Your task to perform on an android device: Set the phone to "Do not disturb". Image 0: 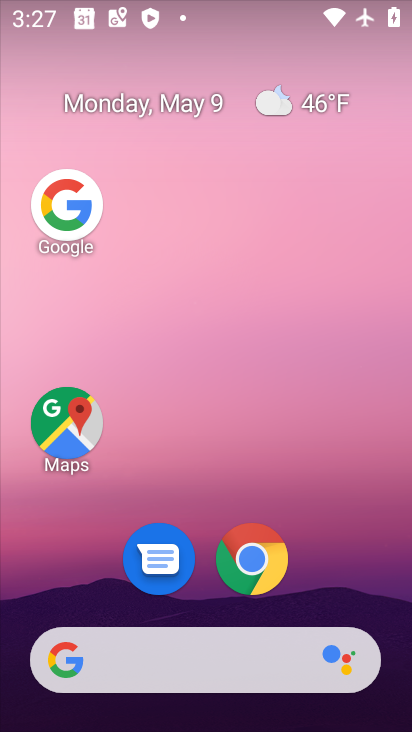
Step 0: drag from (337, 532) to (355, 129)
Your task to perform on an android device: Set the phone to "Do not disturb". Image 1: 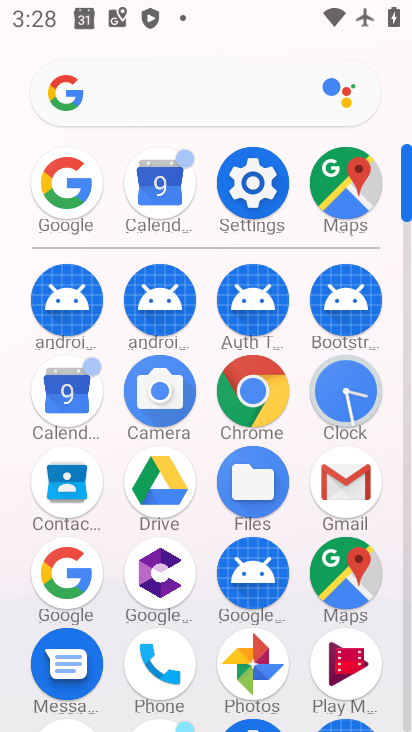
Step 1: drag from (303, 672) to (317, 335)
Your task to perform on an android device: Set the phone to "Do not disturb". Image 2: 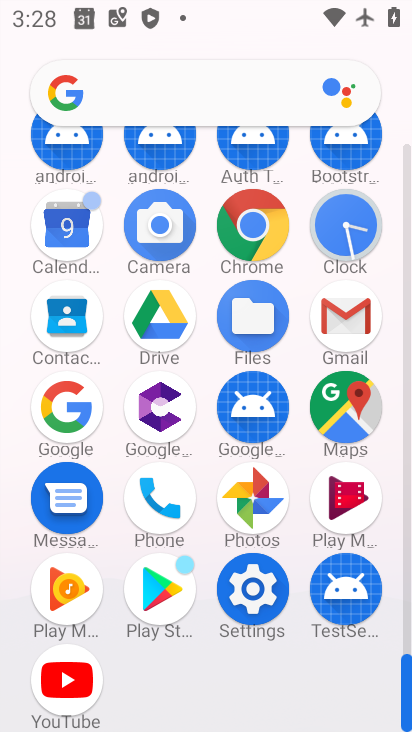
Step 2: click (255, 598)
Your task to perform on an android device: Set the phone to "Do not disturb". Image 3: 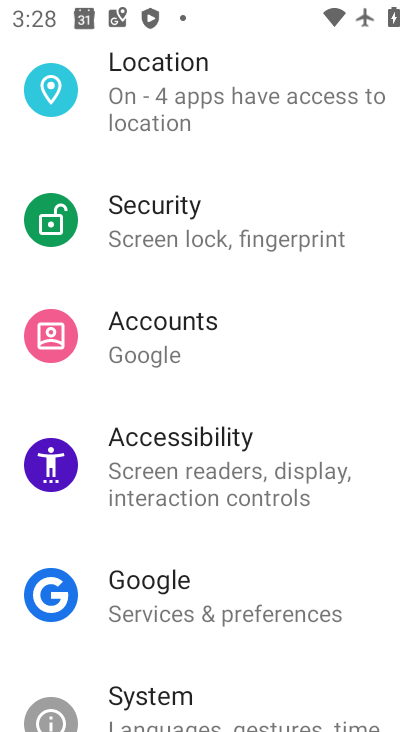
Step 3: drag from (303, 590) to (316, 638)
Your task to perform on an android device: Set the phone to "Do not disturb". Image 4: 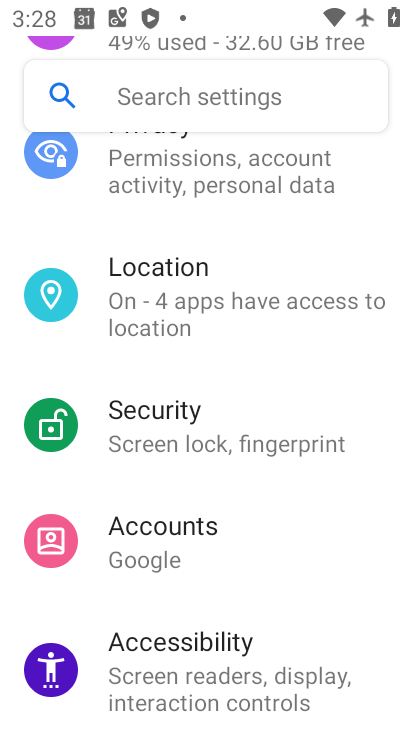
Step 4: drag from (323, 234) to (327, 695)
Your task to perform on an android device: Set the phone to "Do not disturb". Image 5: 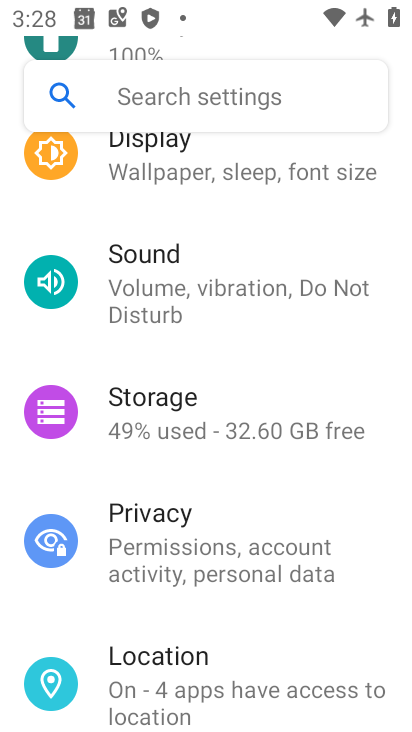
Step 5: drag from (288, 234) to (302, 304)
Your task to perform on an android device: Set the phone to "Do not disturb". Image 6: 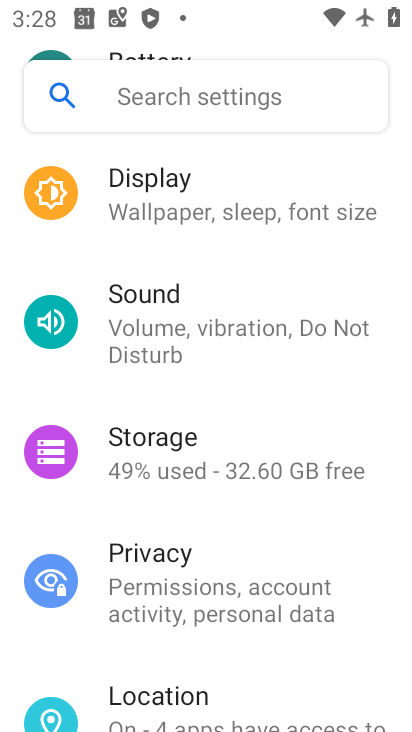
Step 6: click (277, 321)
Your task to perform on an android device: Set the phone to "Do not disturb". Image 7: 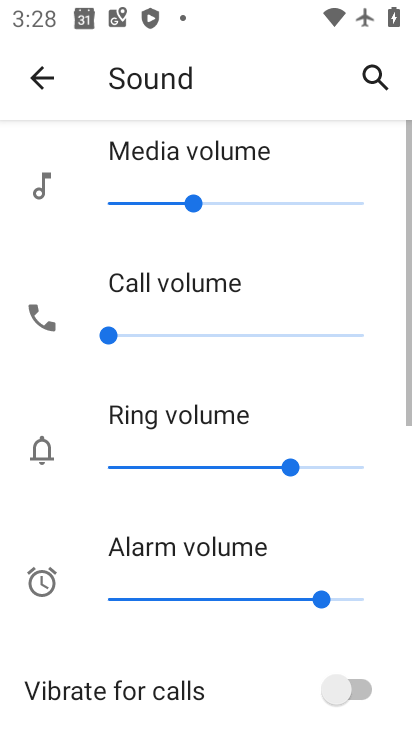
Step 7: click (281, 176)
Your task to perform on an android device: Set the phone to "Do not disturb". Image 8: 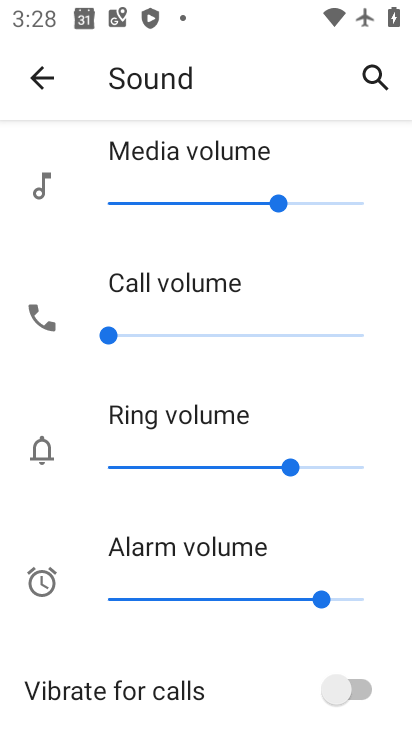
Step 8: drag from (230, 640) to (217, 220)
Your task to perform on an android device: Set the phone to "Do not disturb". Image 9: 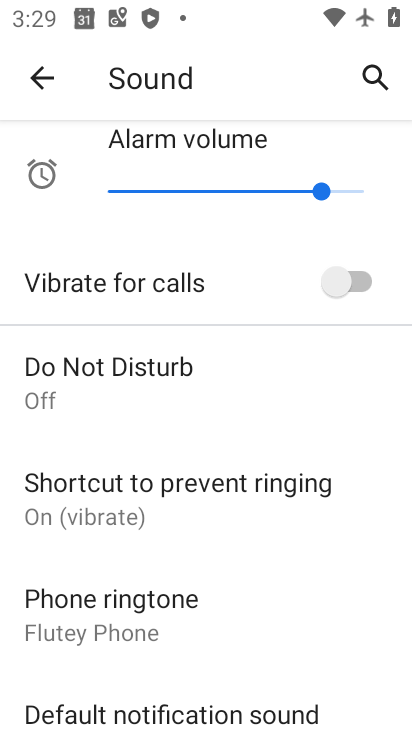
Step 9: click (116, 353)
Your task to perform on an android device: Set the phone to "Do not disturb". Image 10: 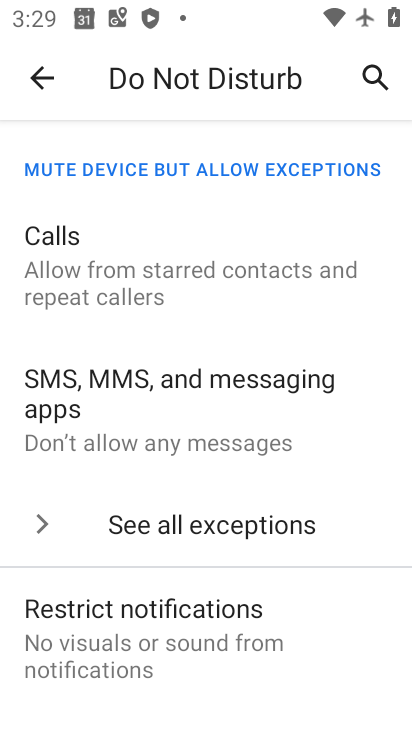
Step 10: drag from (262, 686) to (333, 188)
Your task to perform on an android device: Set the phone to "Do not disturb". Image 11: 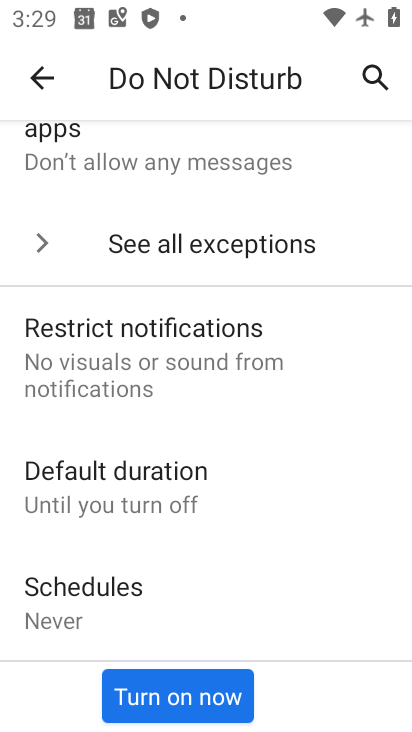
Step 11: click (245, 684)
Your task to perform on an android device: Set the phone to "Do not disturb". Image 12: 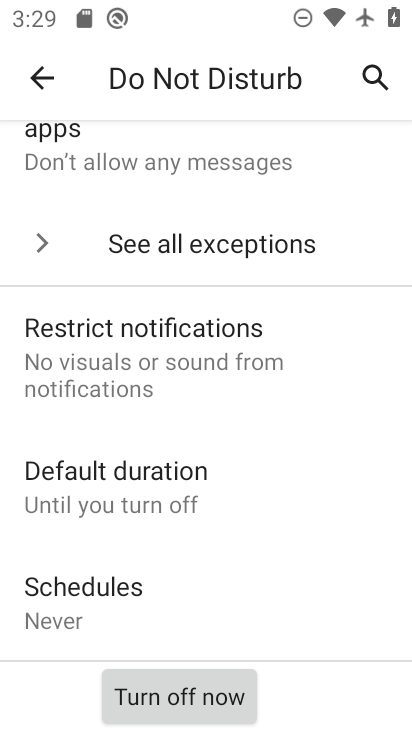
Step 12: task complete